Your task to perform on an android device: Look up the best rated headphones on Amazon. Image 0: 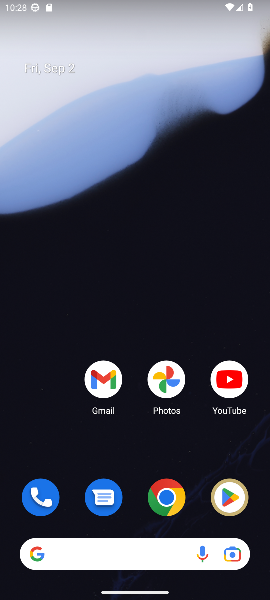
Step 0: drag from (133, 376) to (115, 185)
Your task to perform on an android device: Look up the best rated headphones on Amazon. Image 1: 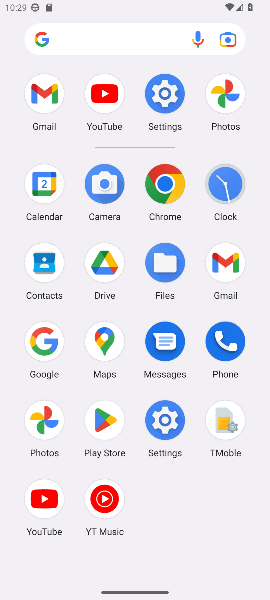
Step 1: click (43, 352)
Your task to perform on an android device: Look up the best rated headphones on Amazon. Image 2: 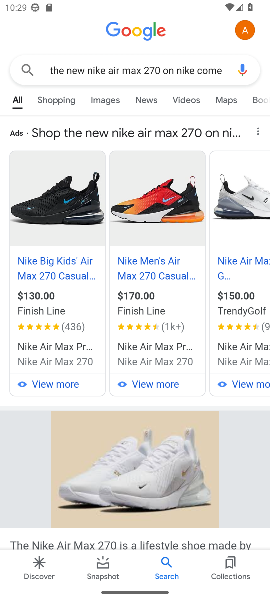
Step 2: click (92, 41)
Your task to perform on an android device: Look up the best rated headphones on Amazon. Image 3: 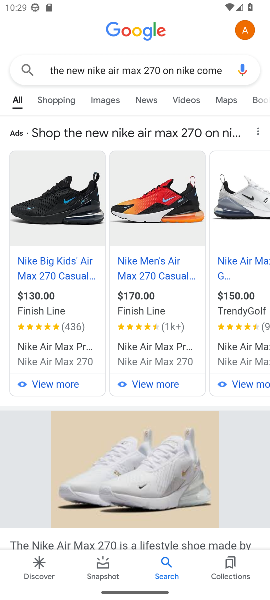
Step 3: click (214, 74)
Your task to perform on an android device: Look up the best rated headphones on Amazon. Image 4: 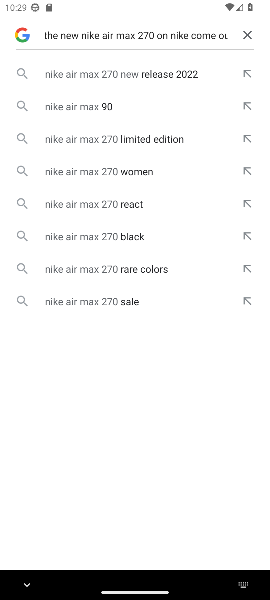
Step 4: click (250, 33)
Your task to perform on an android device: Look up the best rated headphones on Amazon. Image 5: 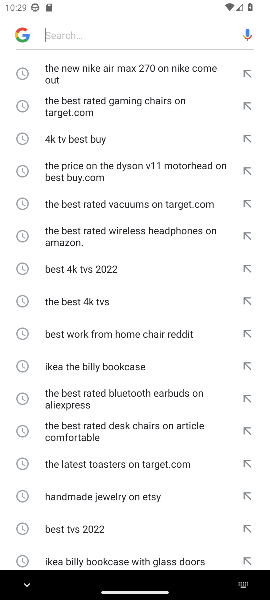
Step 5: click (134, 42)
Your task to perform on an android device: Look up the best rated headphones on Amazon. Image 6: 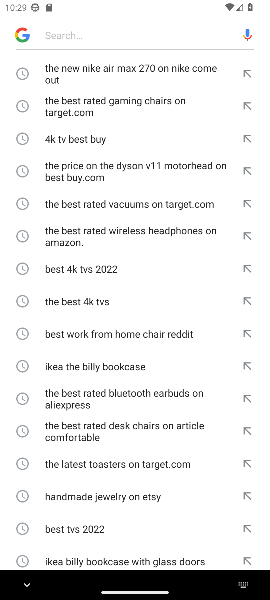
Step 6: type "the best rated headphones on Amazon."
Your task to perform on an android device: Look up the best rated headphones on Amazon. Image 7: 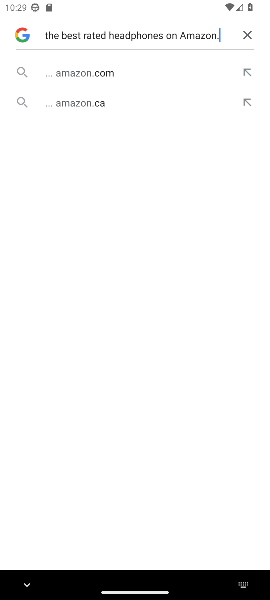
Step 7: click (101, 69)
Your task to perform on an android device: Look up the best rated headphones on Amazon. Image 8: 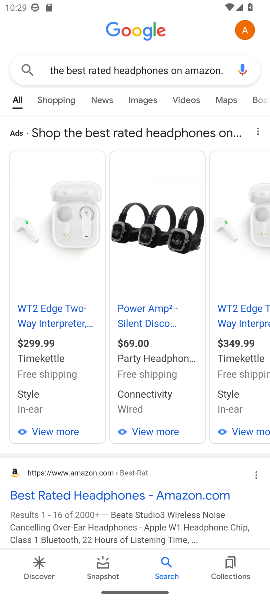
Step 8: task complete